Your task to perform on an android device: empty trash in the gmail app Image 0: 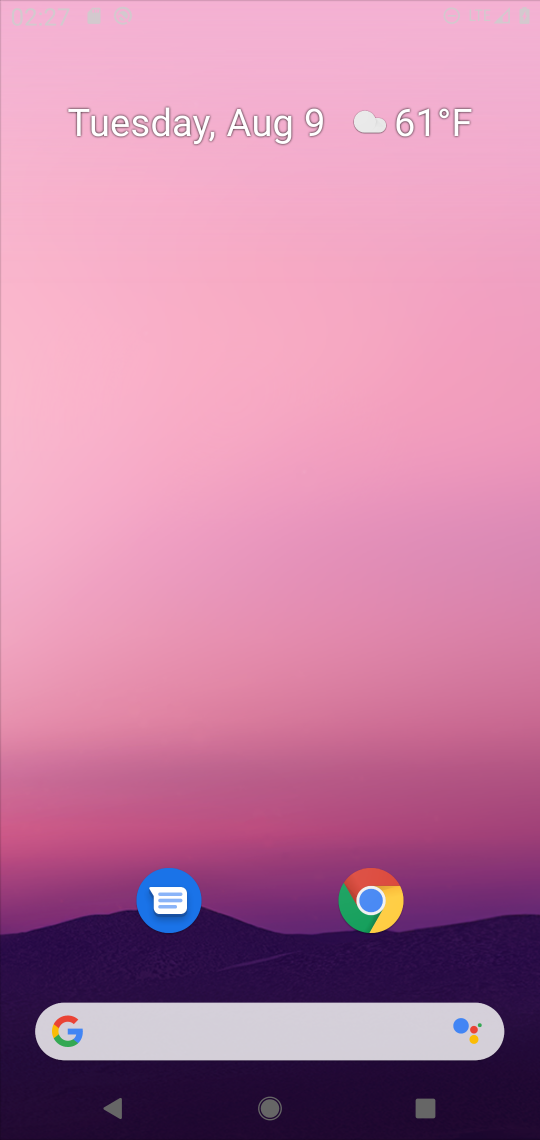
Step 0: press home button
Your task to perform on an android device: empty trash in the gmail app Image 1: 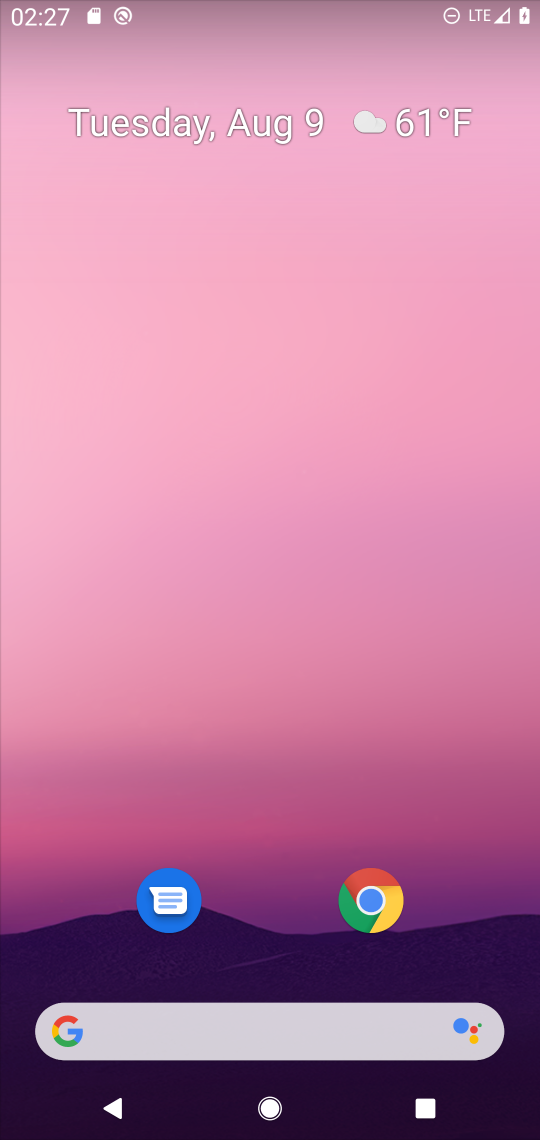
Step 1: drag from (460, 952) to (454, 59)
Your task to perform on an android device: empty trash in the gmail app Image 2: 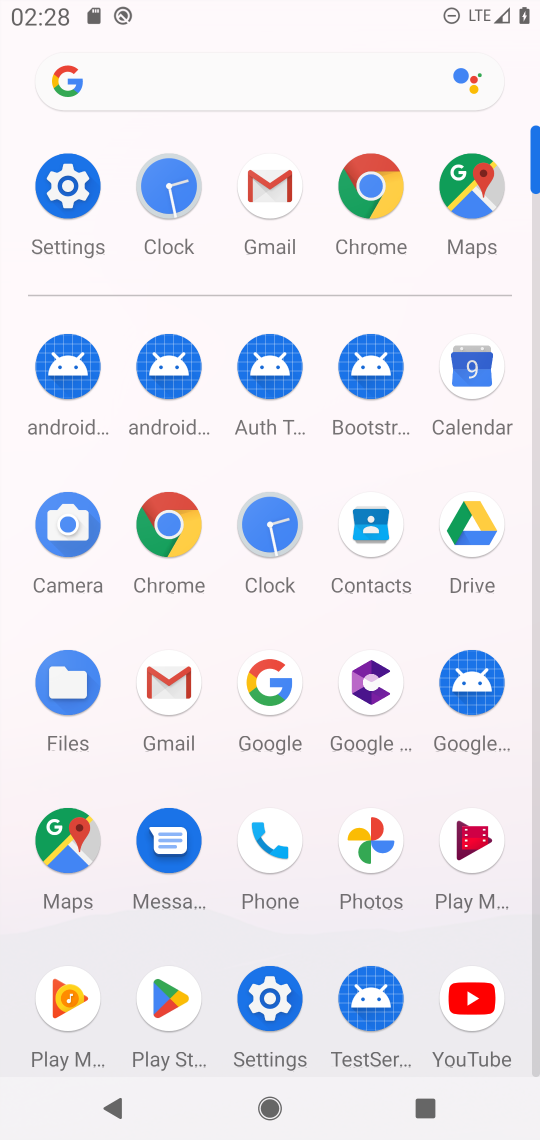
Step 2: click (164, 679)
Your task to perform on an android device: empty trash in the gmail app Image 3: 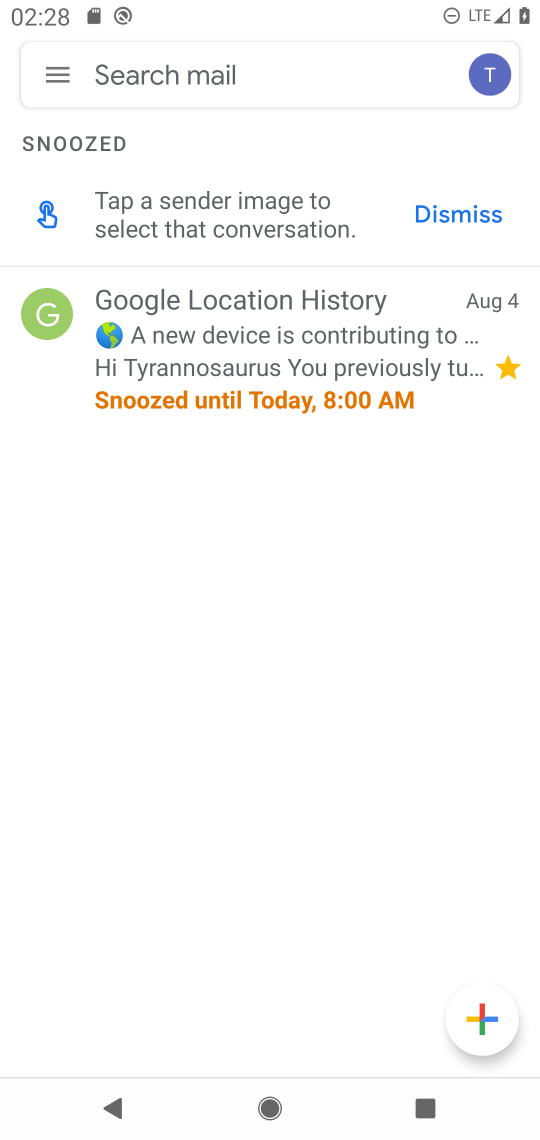
Step 3: click (52, 72)
Your task to perform on an android device: empty trash in the gmail app Image 4: 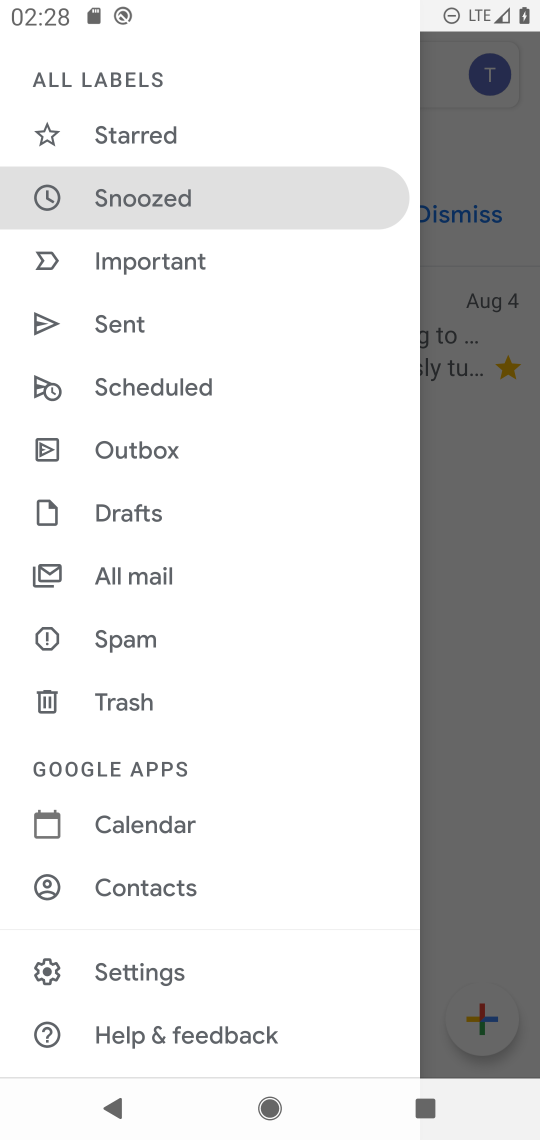
Step 4: click (157, 701)
Your task to perform on an android device: empty trash in the gmail app Image 5: 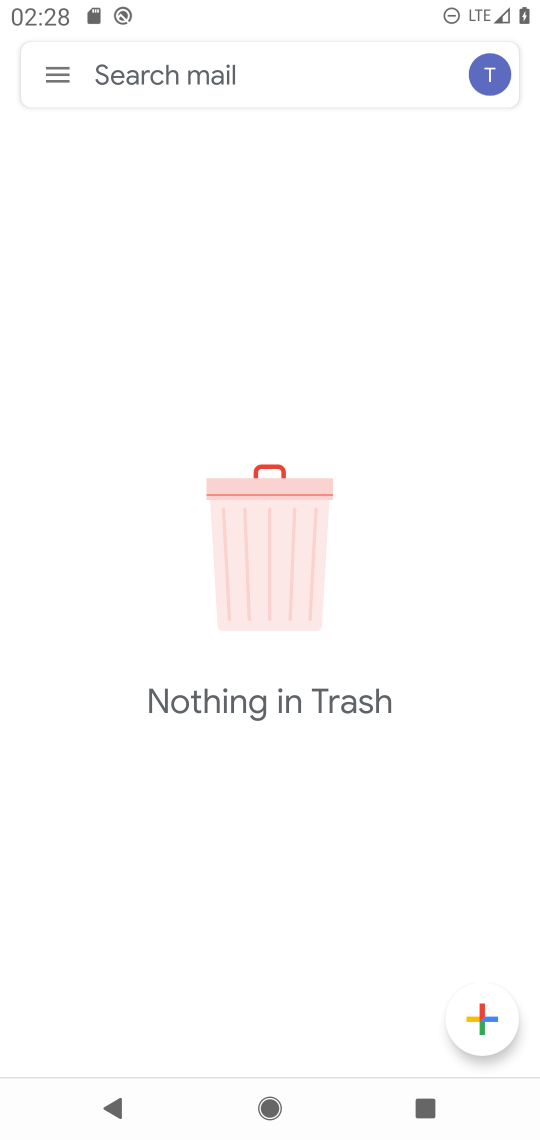
Step 5: task complete